Your task to perform on an android device: change the clock display to digital Image 0: 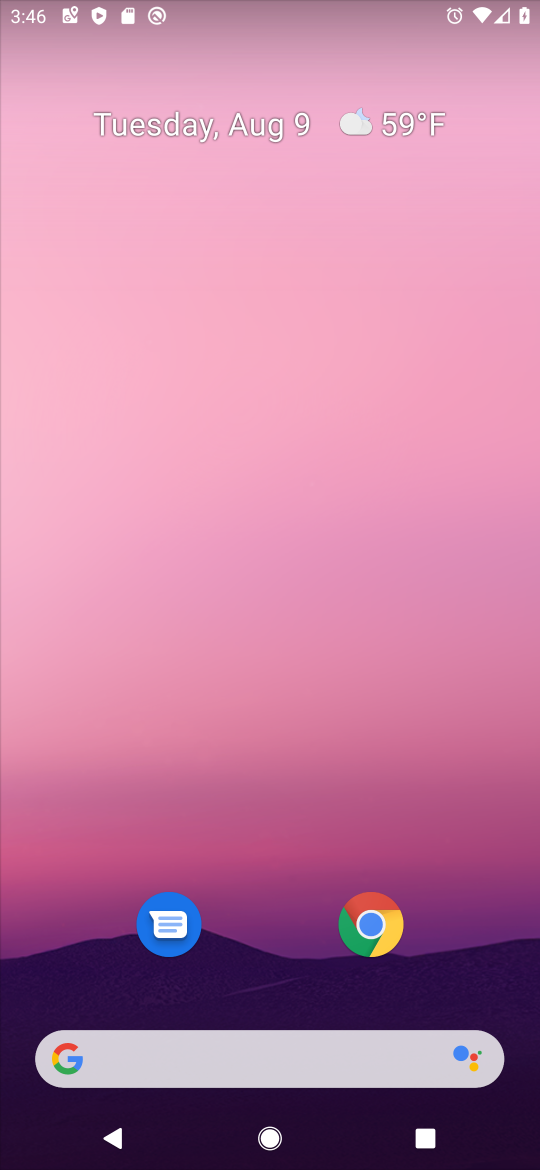
Step 0: drag from (247, 815) to (326, 20)
Your task to perform on an android device: change the clock display to digital Image 1: 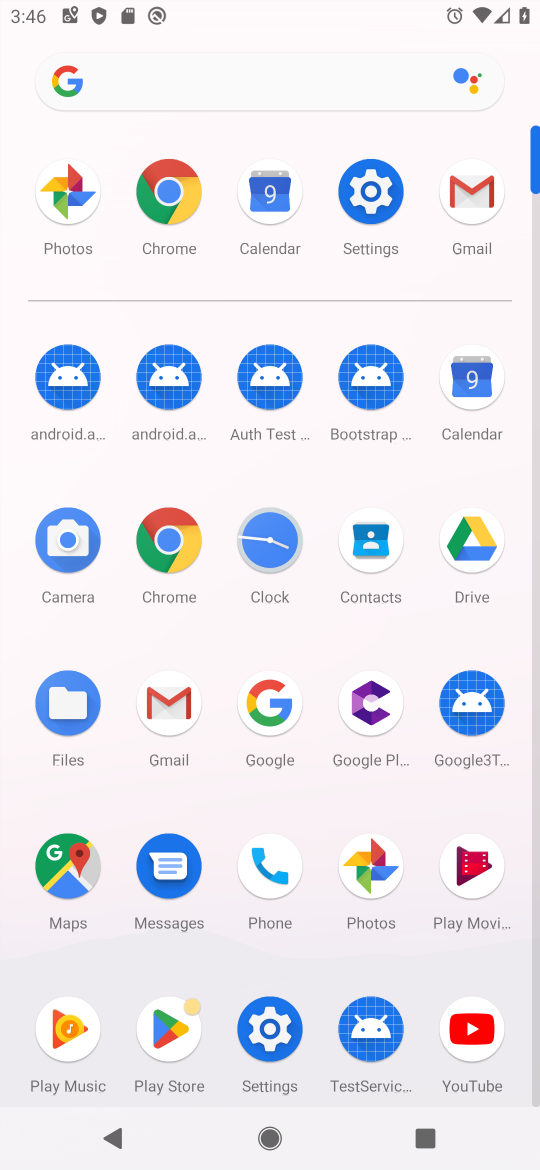
Step 1: click (289, 543)
Your task to perform on an android device: change the clock display to digital Image 2: 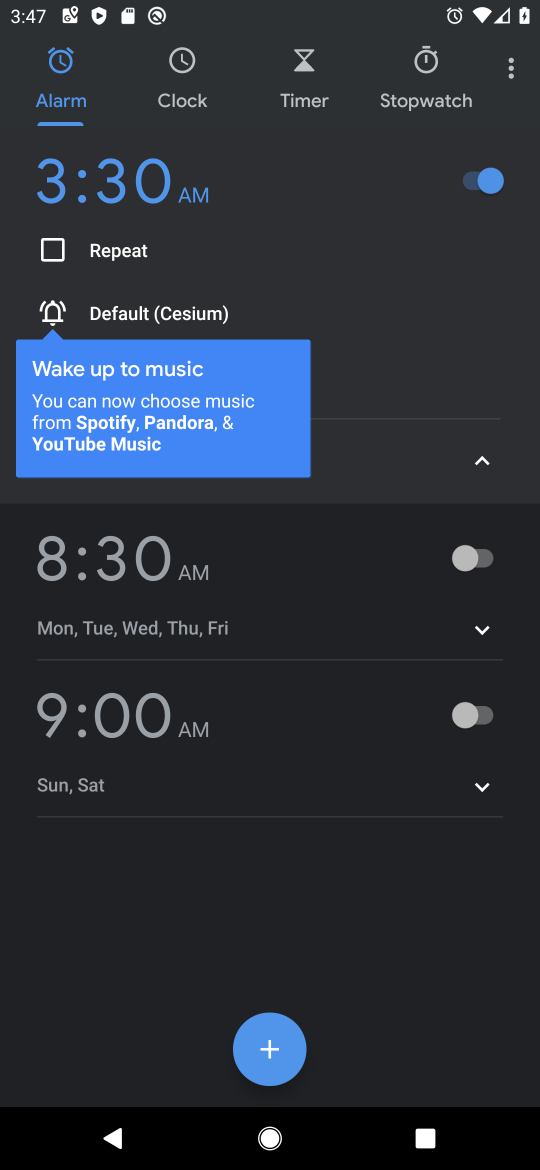
Step 2: click (190, 91)
Your task to perform on an android device: change the clock display to digital Image 3: 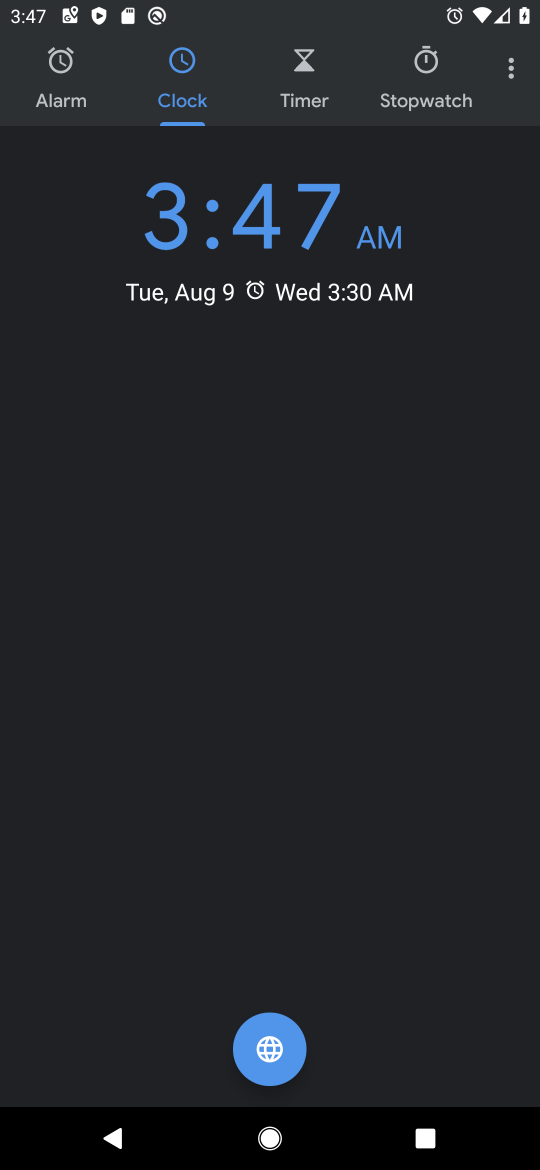
Step 3: task complete